Your task to perform on an android device: toggle notifications settings in the gmail app Image 0: 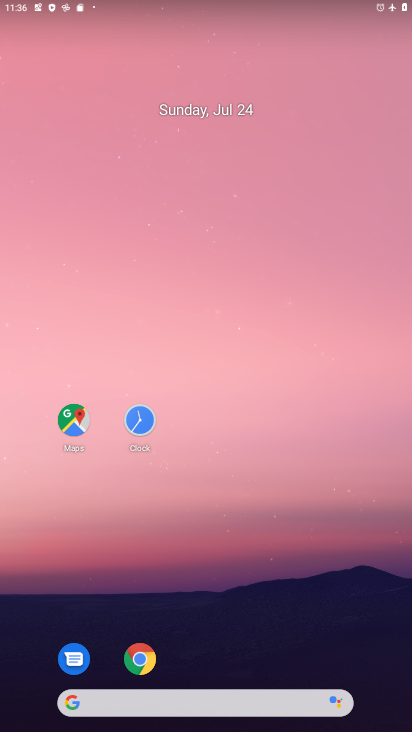
Step 0: drag from (374, 722) to (360, 124)
Your task to perform on an android device: toggle notifications settings in the gmail app Image 1: 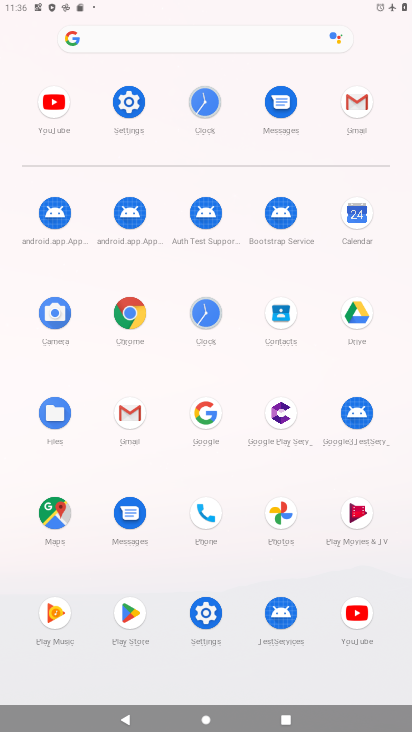
Step 1: click (127, 415)
Your task to perform on an android device: toggle notifications settings in the gmail app Image 2: 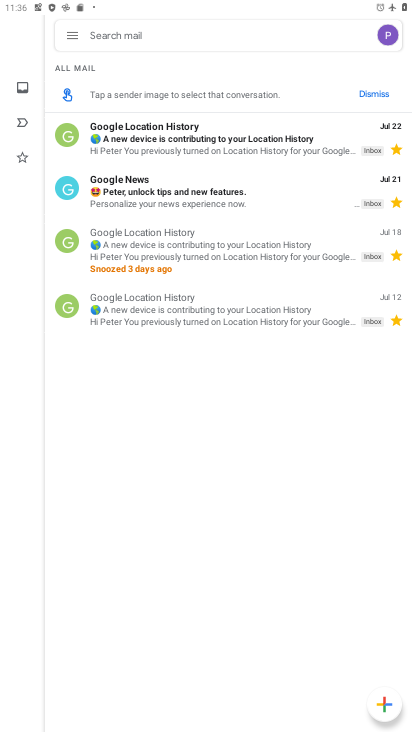
Step 2: click (68, 29)
Your task to perform on an android device: toggle notifications settings in the gmail app Image 3: 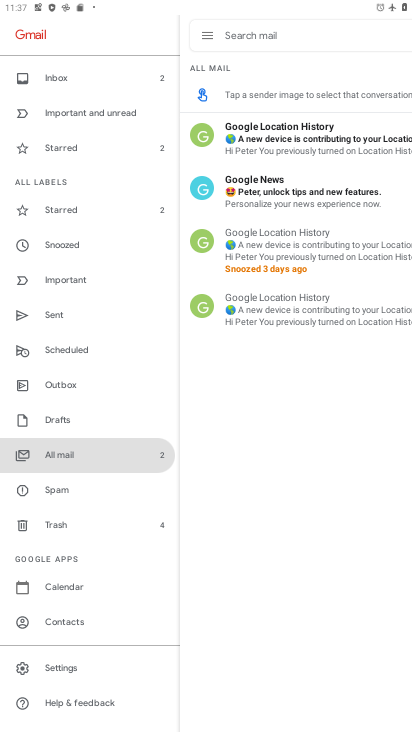
Step 3: click (44, 664)
Your task to perform on an android device: toggle notifications settings in the gmail app Image 4: 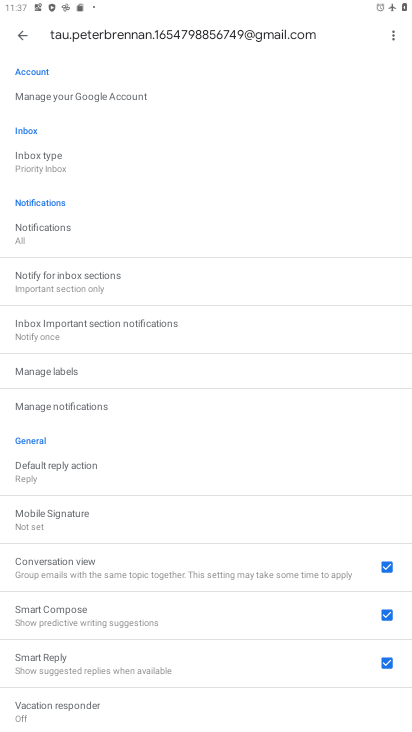
Step 4: click (40, 221)
Your task to perform on an android device: toggle notifications settings in the gmail app Image 5: 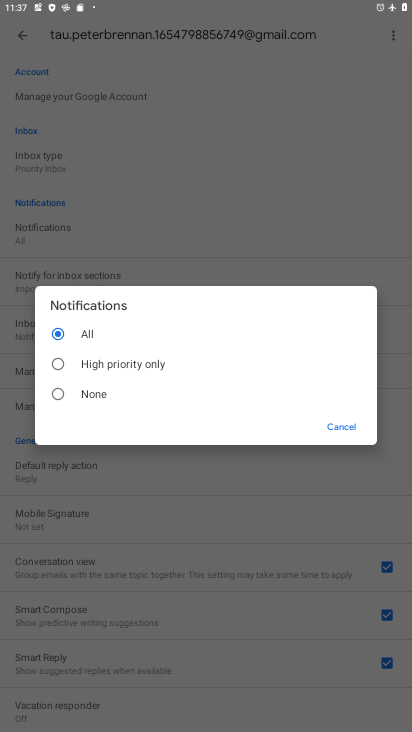
Step 5: click (72, 361)
Your task to perform on an android device: toggle notifications settings in the gmail app Image 6: 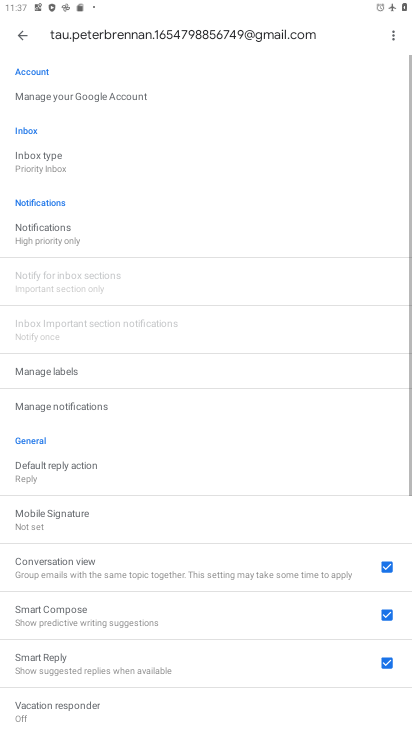
Step 6: task complete